Your task to perform on an android device: Find coffee shops on Maps Image 0: 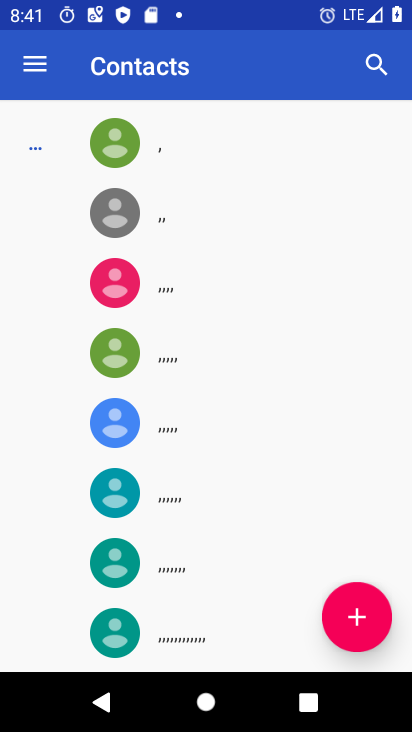
Step 0: press home button
Your task to perform on an android device: Find coffee shops on Maps Image 1: 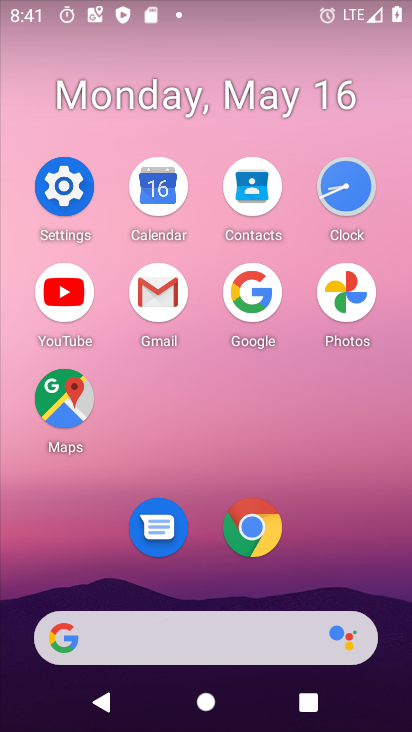
Step 1: click (73, 399)
Your task to perform on an android device: Find coffee shops on Maps Image 2: 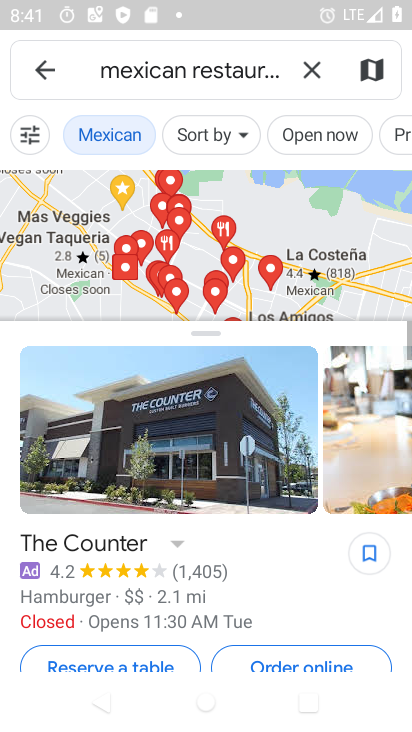
Step 2: click (300, 71)
Your task to perform on an android device: Find coffee shops on Maps Image 3: 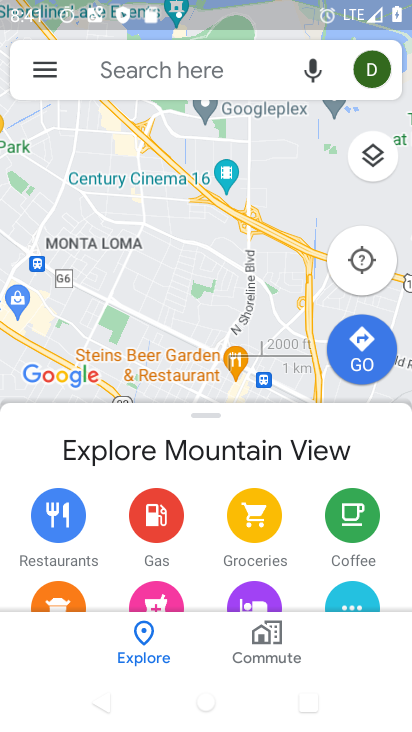
Step 3: click (115, 77)
Your task to perform on an android device: Find coffee shops on Maps Image 4: 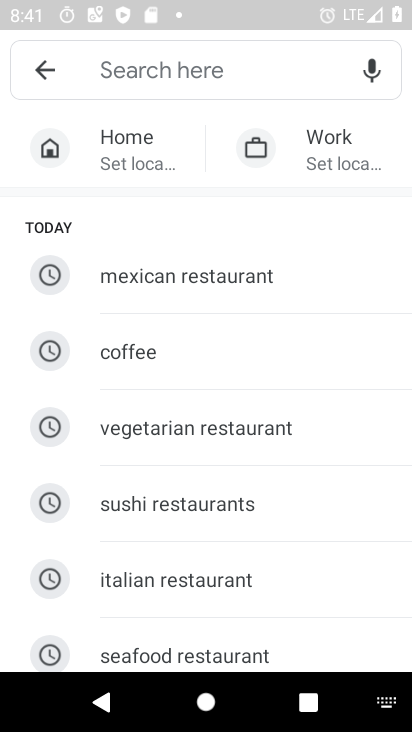
Step 4: drag from (253, 557) to (243, 205)
Your task to perform on an android device: Find coffee shops on Maps Image 5: 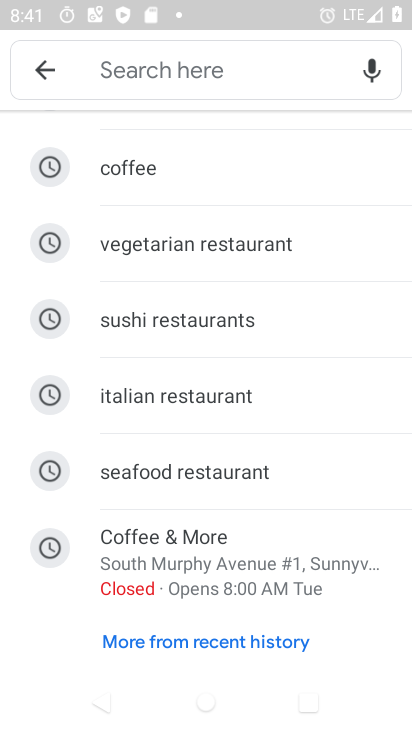
Step 5: drag from (299, 534) to (253, 240)
Your task to perform on an android device: Find coffee shops on Maps Image 6: 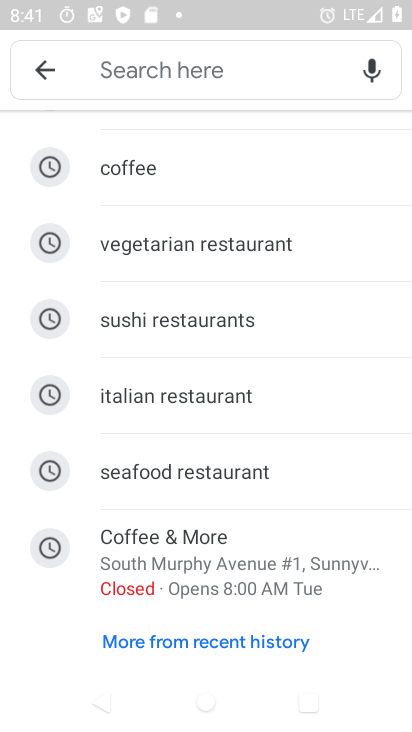
Step 6: click (181, 81)
Your task to perform on an android device: Find coffee shops on Maps Image 7: 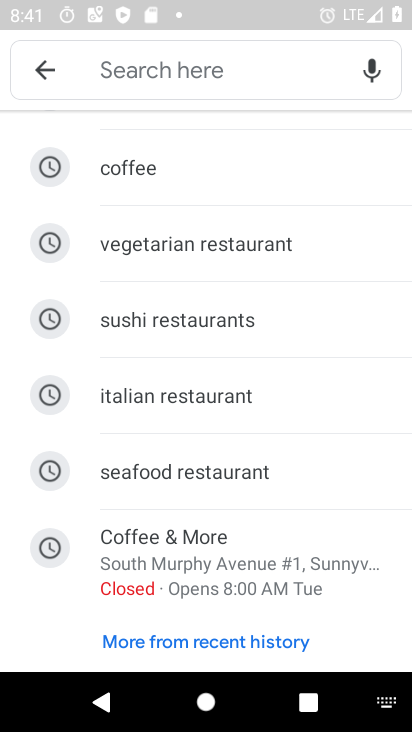
Step 7: type "coffee shops"
Your task to perform on an android device: Find coffee shops on Maps Image 8: 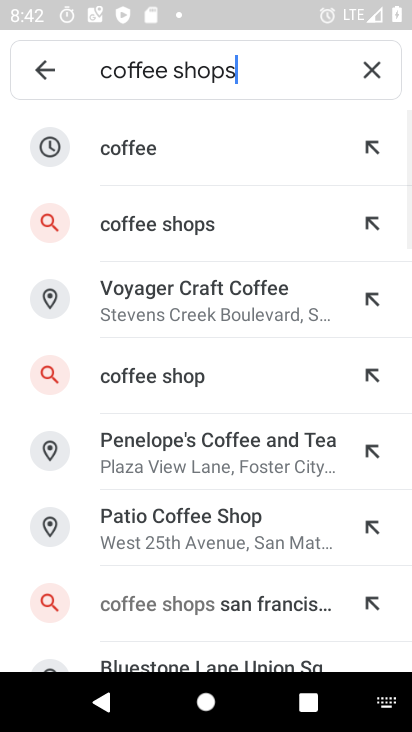
Step 8: click (196, 216)
Your task to perform on an android device: Find coffee shops on Maps Image 9: 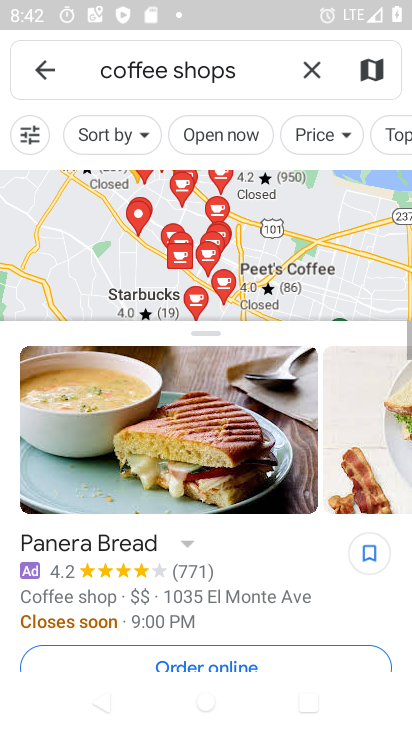
Step 9: task complete